Your task to perform on an android device: install app "Microsoft Outlook" Image 0: 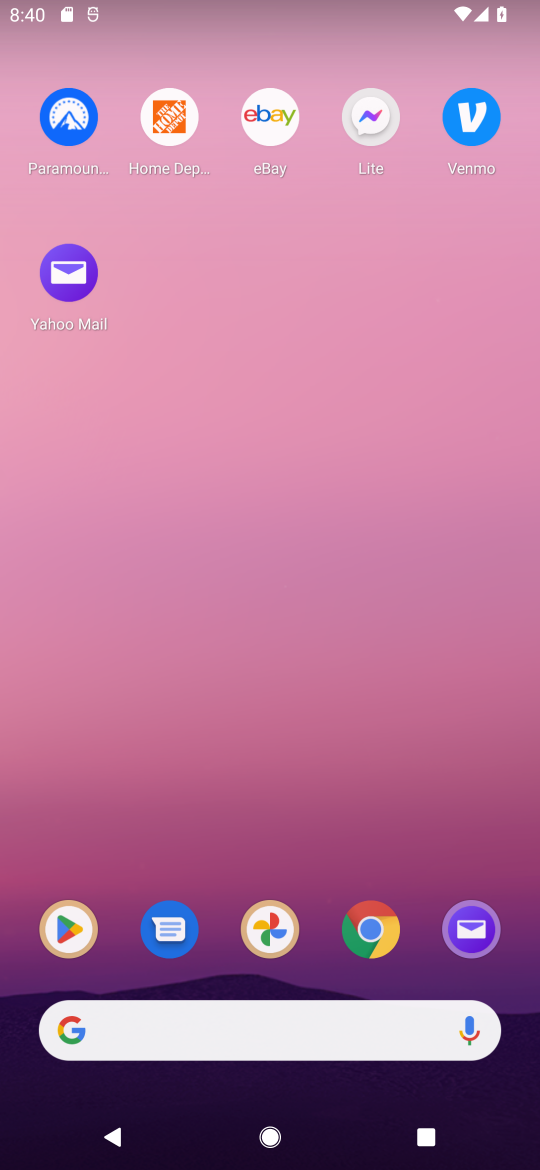
Step 0: press home button
Your task to perform on an android device: install app "Microsoft Outlook" Image 1: 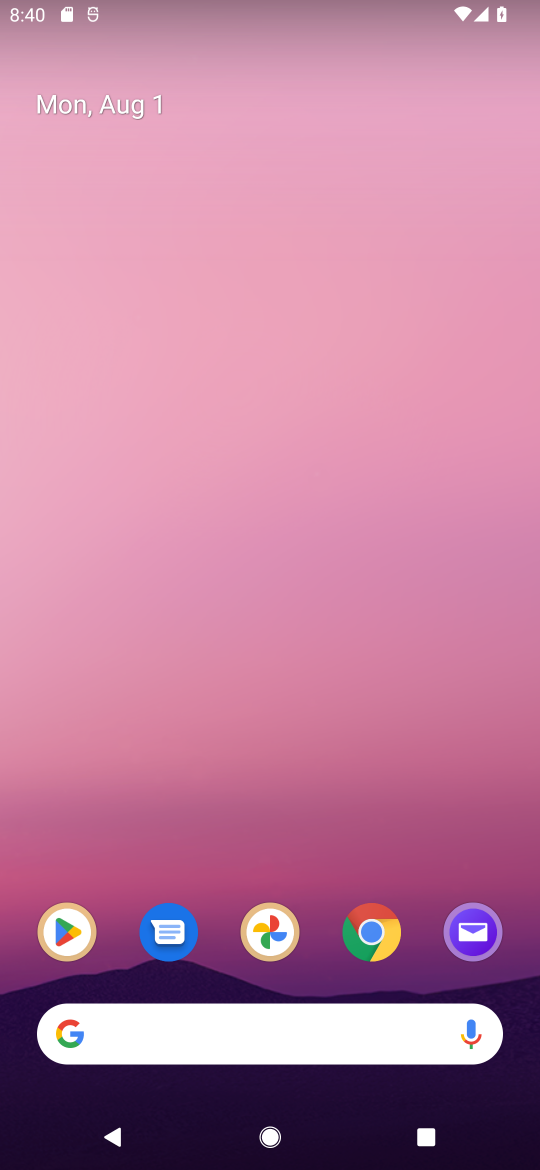
Step 1: click (60, 906)
Your task to perform on an android device: install app "Microsoft Outlook" Image 2: 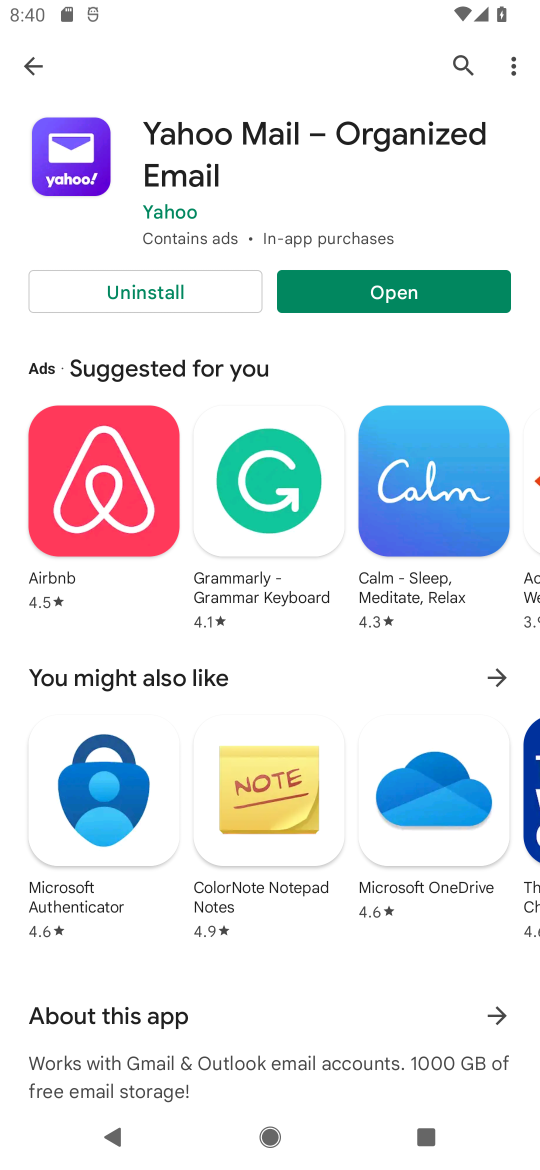
Step 2: click (455, 67)
Your task to perform on an android device: install app "Microsoft Outlook" Image 3: 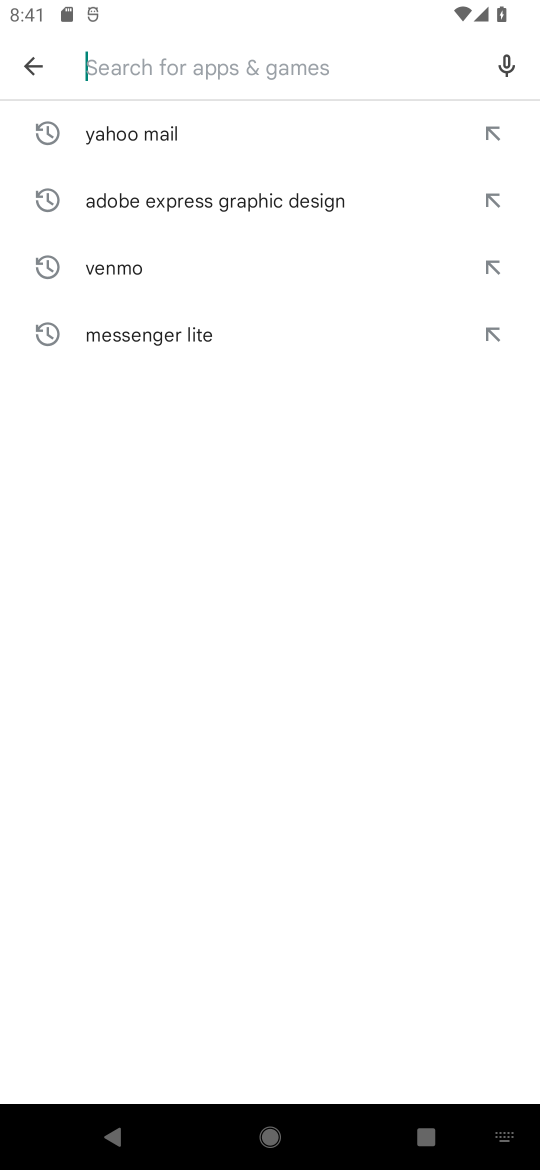
Step 3: type "microsoft outlook"
Your task to perform on an android device: install app "Microsoft Outlook" Image 4: 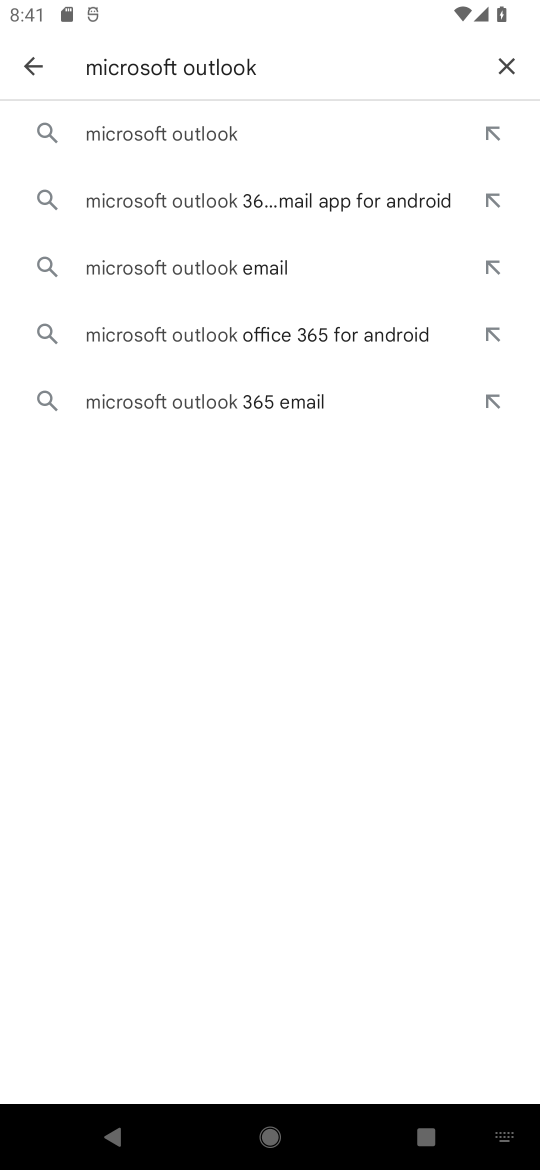
Step 4: click (321, 120)
Your task to perform on an android device: install app "Microsoft Outlook" Image 5: 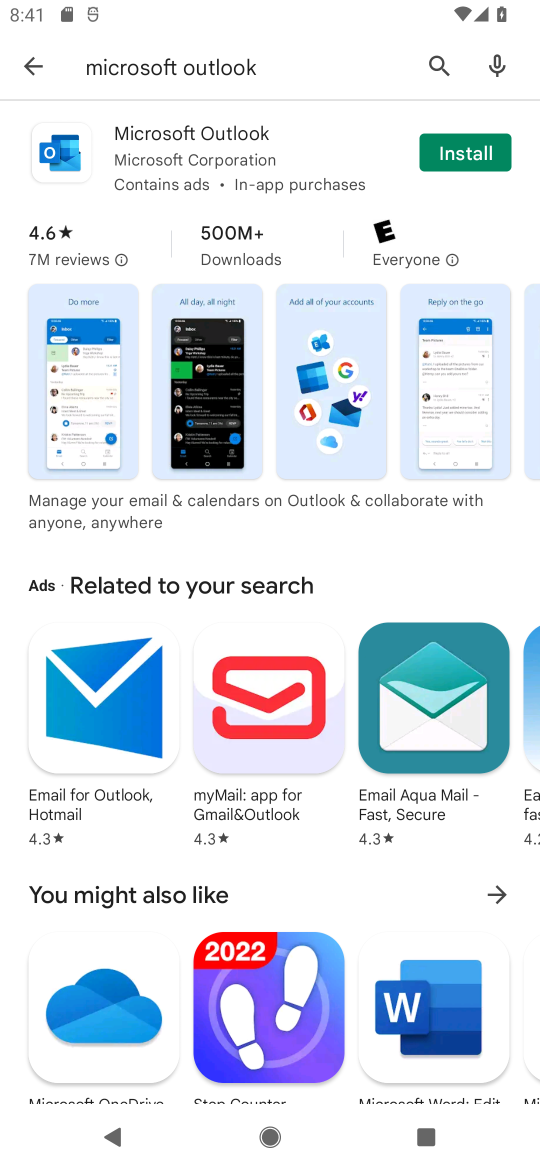
Step 5: click (300, 129)
Your task to perform on an android device: install app "Microsoft Outlook" Image 6: 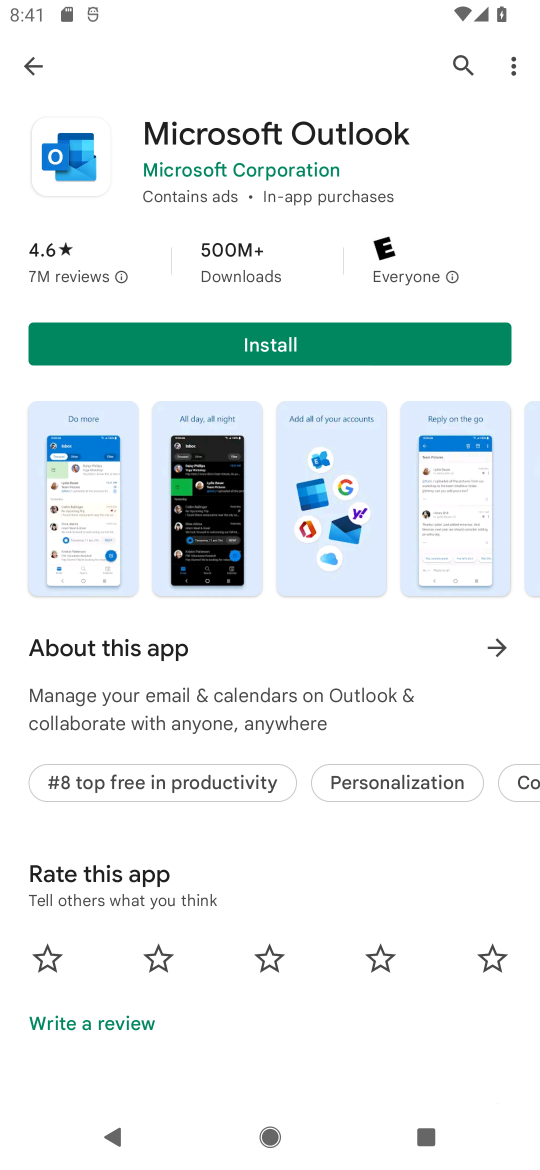
Step 6: click (250, 335)
Your task to perform on an android device: install app "Microsoft Outlook" Image 7: 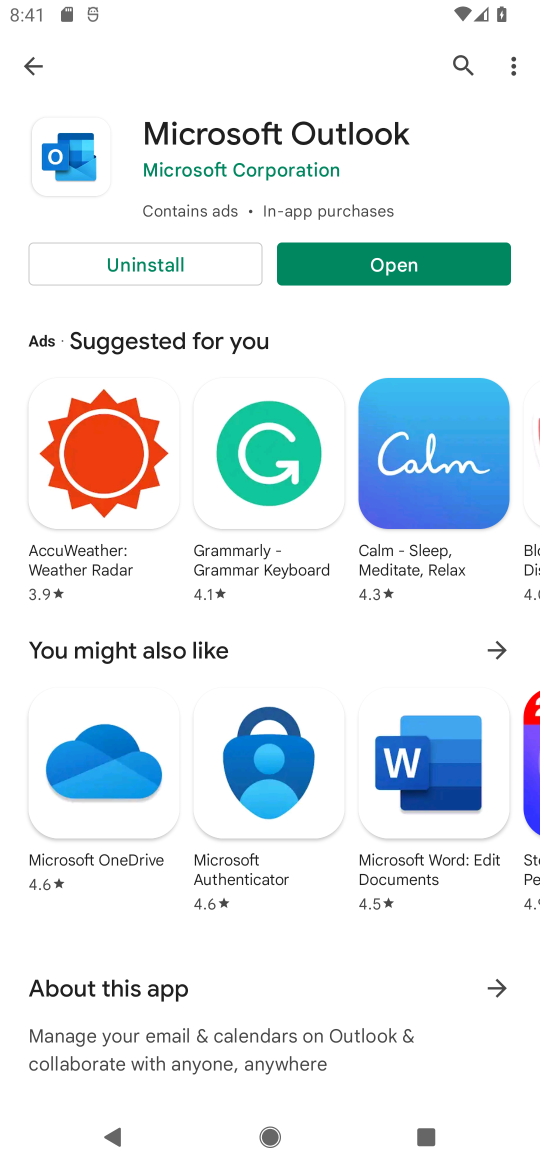
Step 7: task complete